Your task to perform on an android device: toggle translation in the chrome app Image 0: 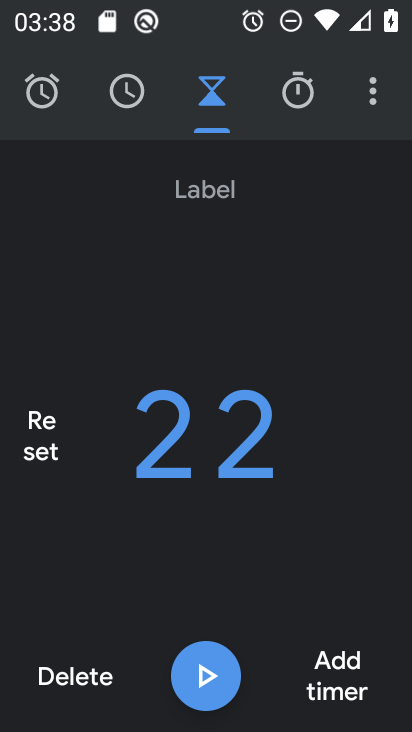
Step 0: press home button
Your task to perform on an android device: toggle translation in the chrome app Image 1: 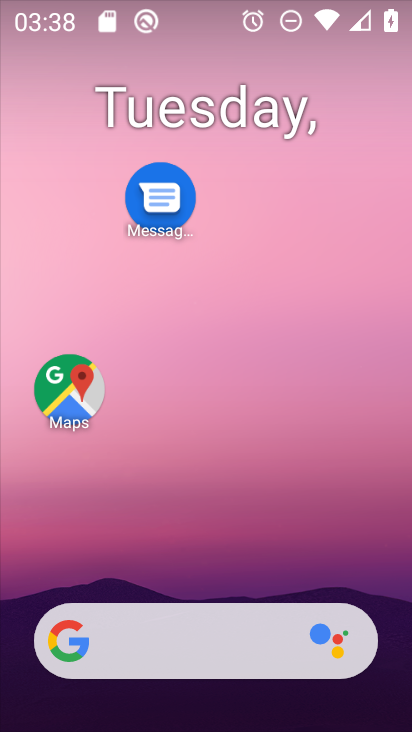
Step 1: drag from (226, 572) to (259, 227)
Your task to perform on an android device: toggle translation in the chrome app Image 2: 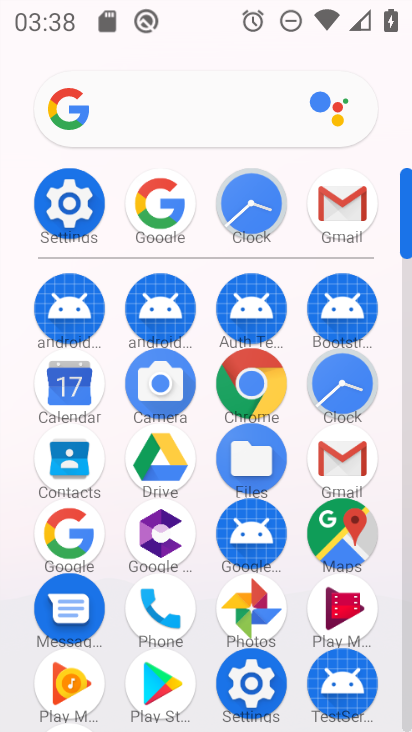
Step 2: click (250, 378)
Your task to perform on an android device: toggle translation in the chrome app Image 3: 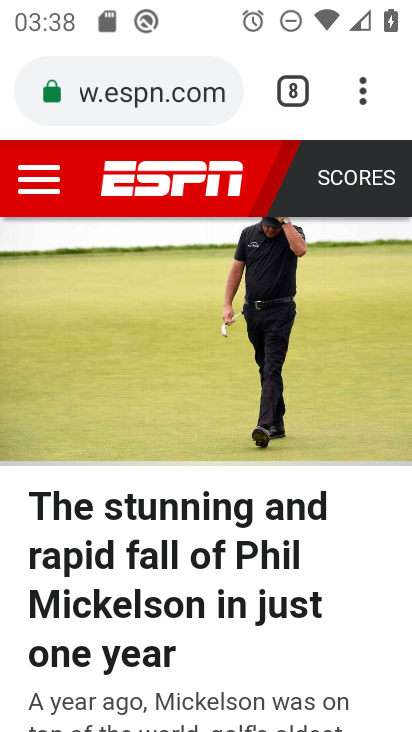
Step 3: drag from (363, 94) to (159, 559)
Your task to perform on an android device: toggle translation in the chrome app Image 4: 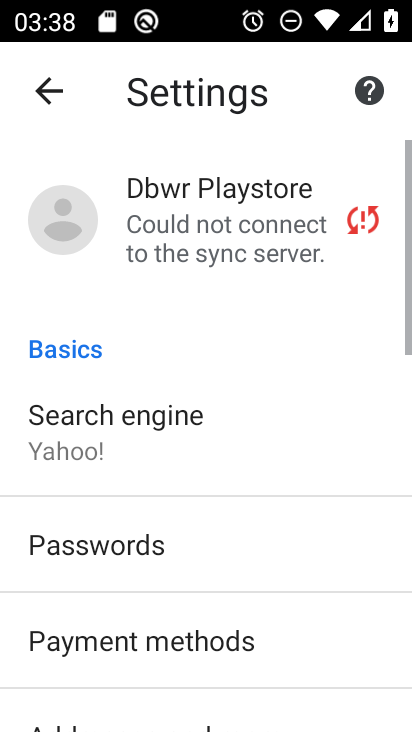
Step 4: drag from (173, 581) to (260, 276)
Your task to perform on an android device: toggle translation in the chrome app Image 5: 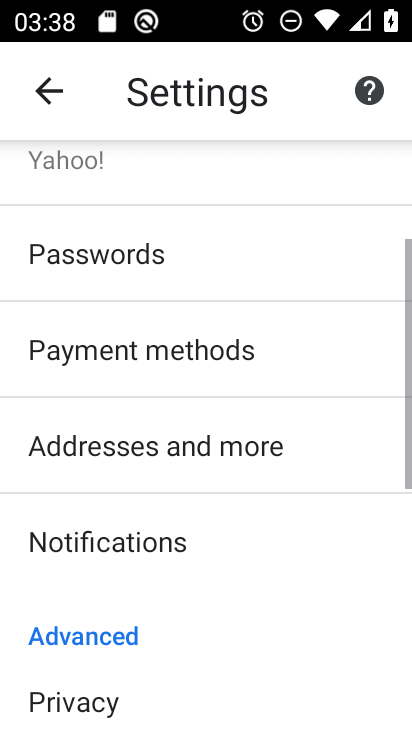
Step 5: drag from (240, 489) to (269, 285)
Your task to perform on an android device: toggle translation in the chrome app Image 6: 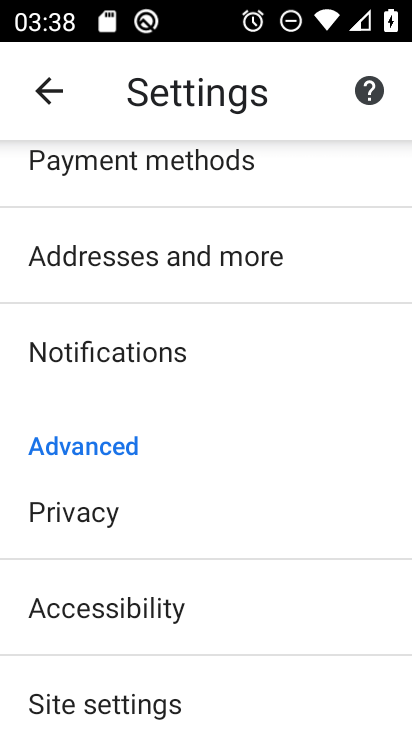
Step 6: drag from (253, 624) to (280, 442)
Your task to perform on an android device: toggle translation in the chrome app Image 7: 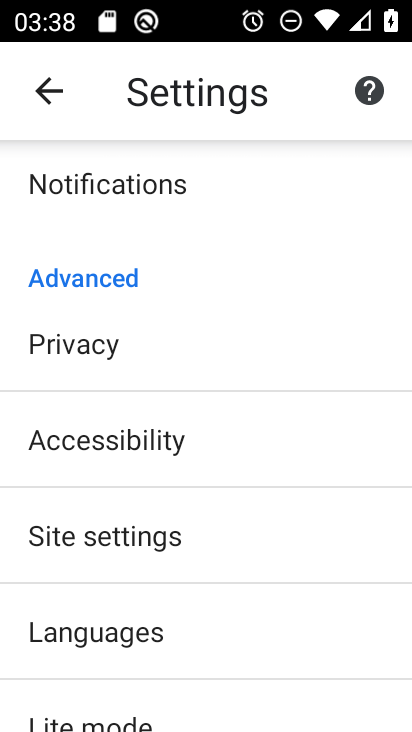
Step 7: click (157, 636)
Your task to perform on an android device: toggle translation in the chrome app Image 8: 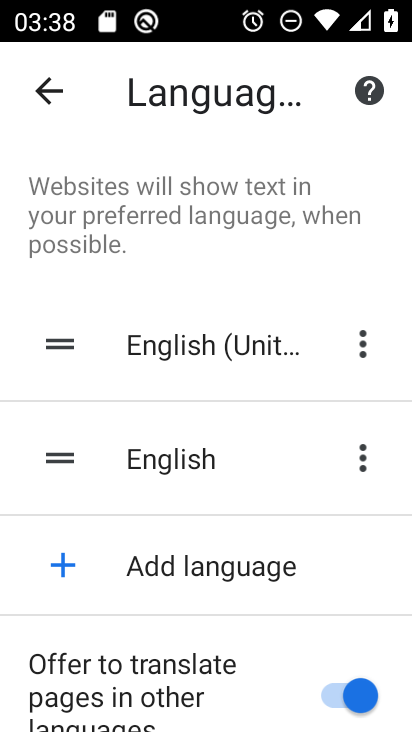
Step 8: click (335, 695)
Your task to perform on an android device: toggle translation in the chrome app Image 9: 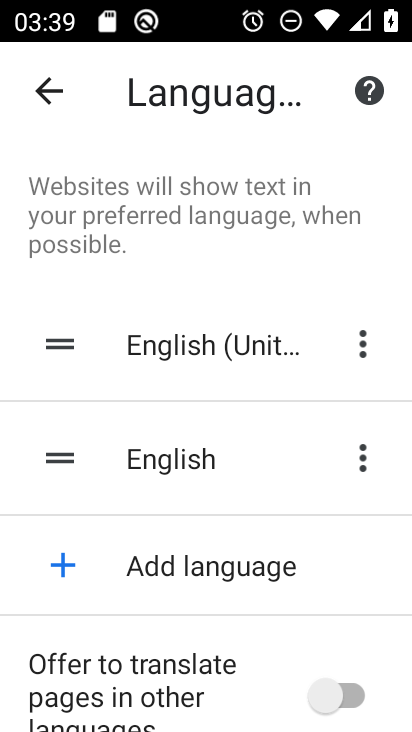
Step 9: task complete